Your task to perform on an android device: Go to Google maps Image 0: 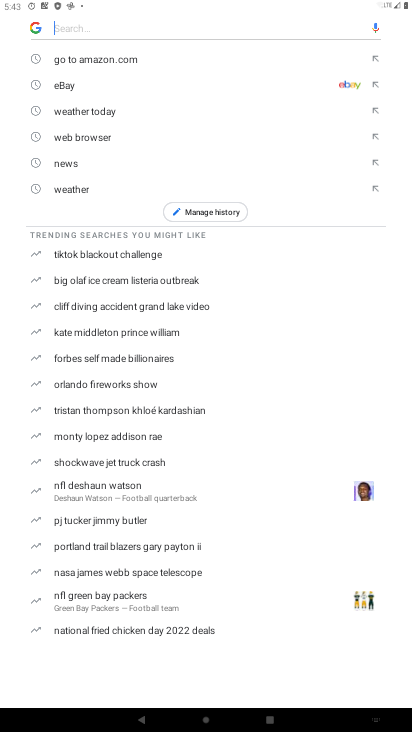
Step 0: press home button
Your task to perform on an android device: Go to Google maps Image 1: 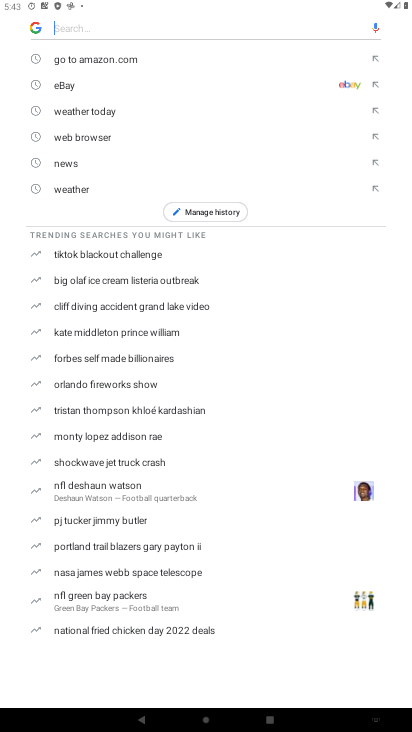
Step 1: drag from (312, 231) to (282, 41)
Your task to perform on an android device: Go to Google maps Image 2: 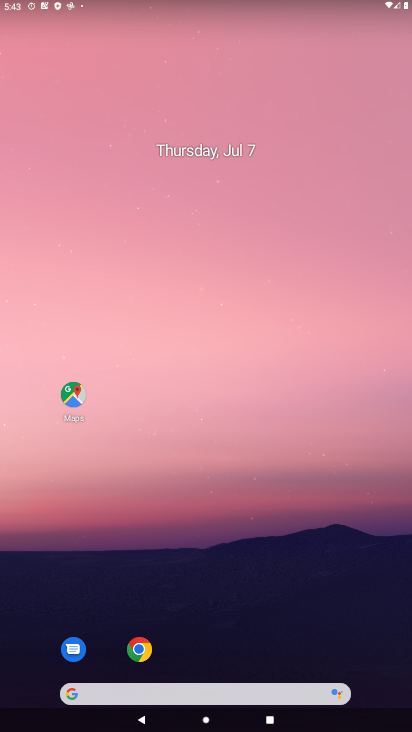
Step 2: drag from (390, 655) to (300, 14)
Your task to perform on an android device: Go to Google maps Image 3: 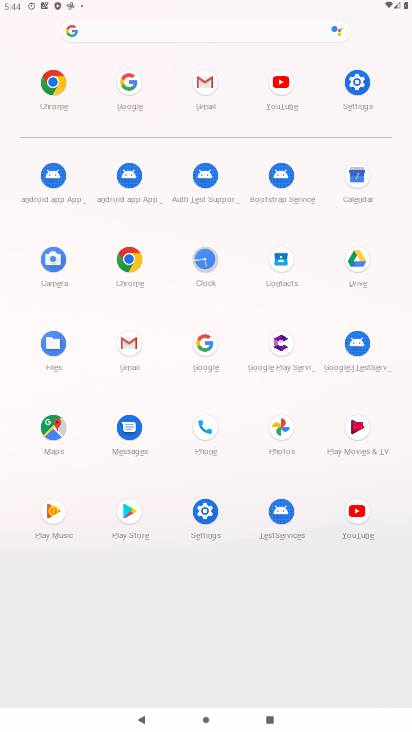
Step 3: click (61, 429)
Your task to perform on an android device: Go to Google maps Image 4: 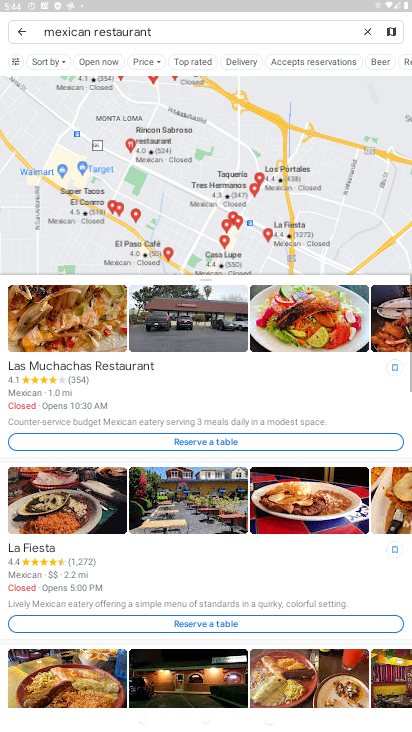
Step 4: click (362, 29)
Your task to perform on an android device: Go to Google maps Image 5: 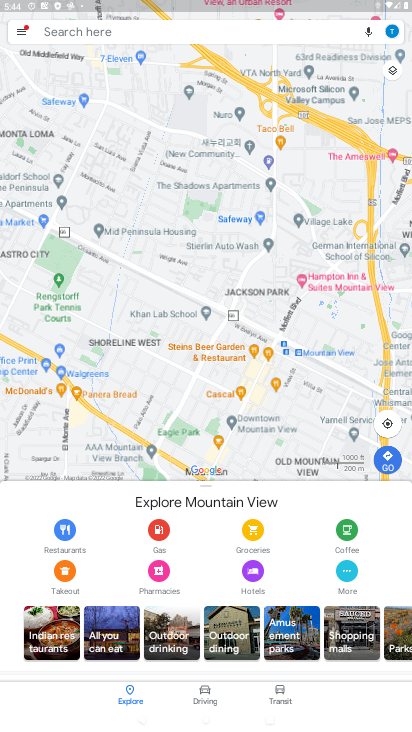
Step 5: task complete